Your task to perform on an android device: turn notification dots on Image 0: 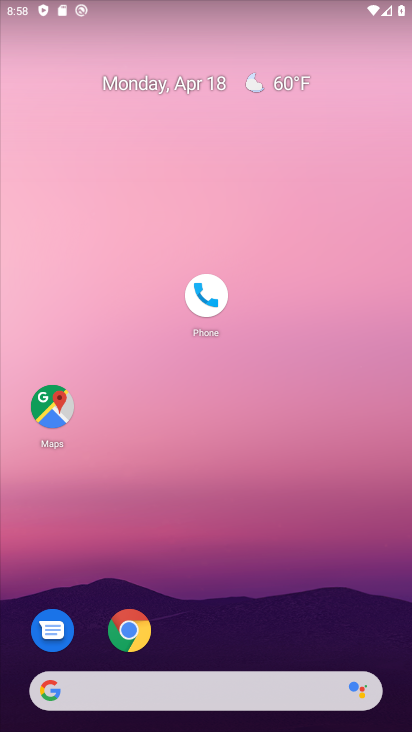
Step 0: drag from (270, 519) to (288, 112)
Your task to perform on an android device: turn notification dots on Image 1: 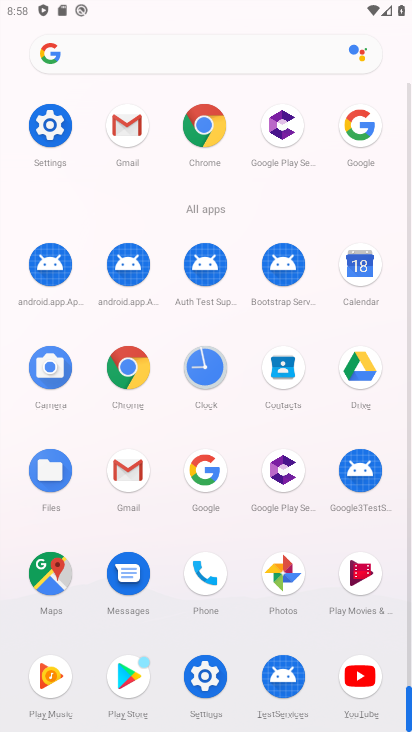
Step 1: click (47, 121)
Your task to perform on an android device: turn notification dots on Image 2: 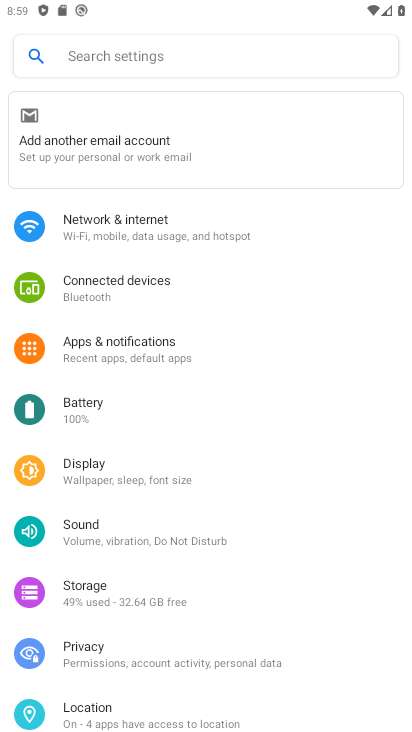
Step 2: click (133, 346)
Your task to perform on an android device: turn notification dots on Image 3: 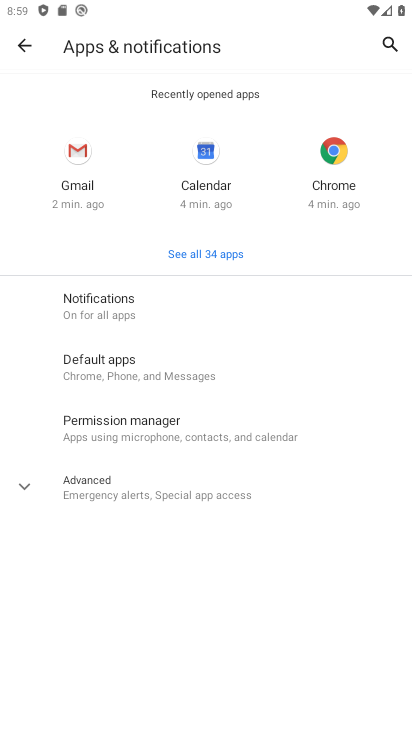
Step 3: click (109, 310)
Your task to perform on an android device: turn notification dots on Image 4: 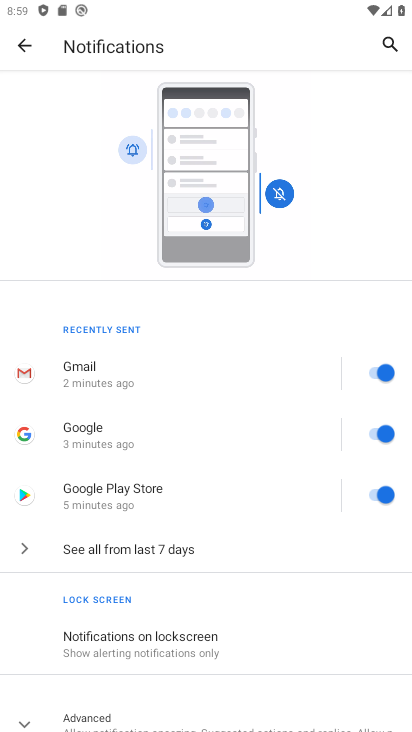
Step 4: drag from (268, 653) to (198, 235)
Your task to perform on an android device: turn notification dots on Image 5: 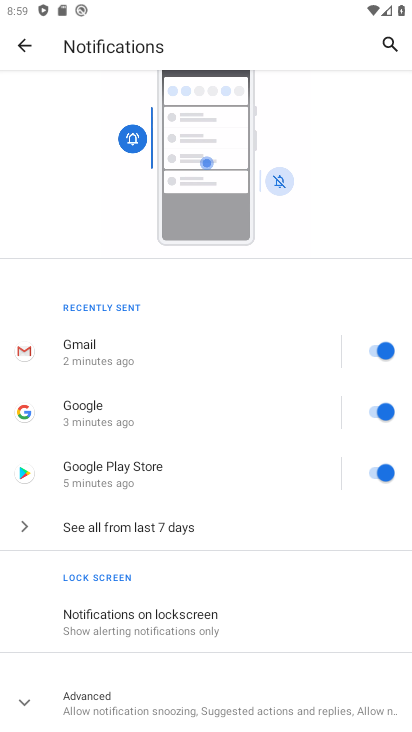
Step 5: click (91, 701)
Your task to perform on an android device: turn notification dots on Image 6: 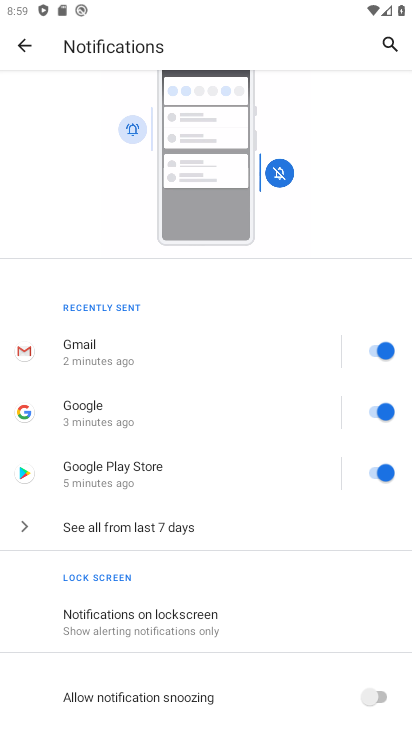
Step 6: task complete